Your task to perform on an android device: turn on improve location accuracy Image 0: 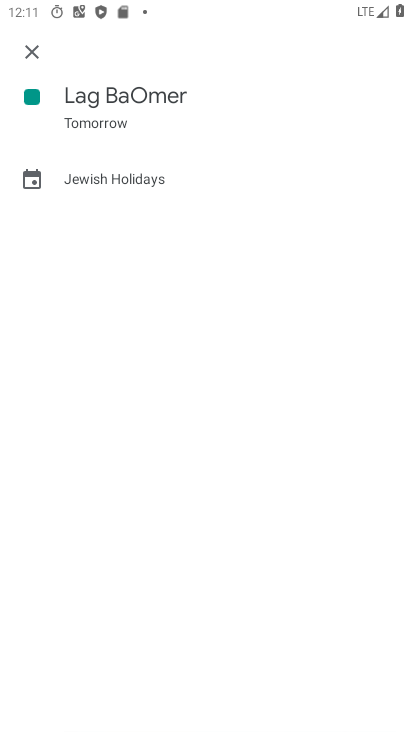
Step 0: press home button
Your task to perform on an android device: turn on improve location accuracy Image 1: 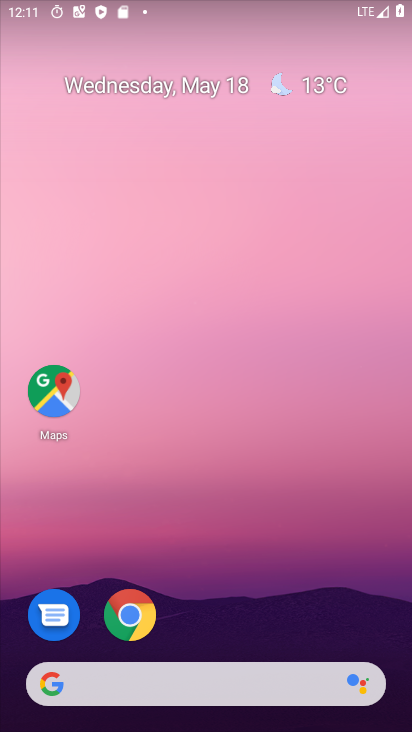
Step 1: drag from (143, 683) to (262, 83)
Your task to perform on an android device: turn on improve location accuracy Image 2: 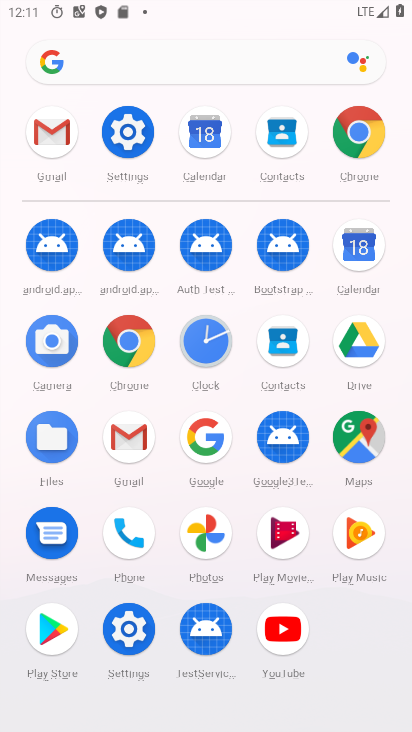
Step 2: click (137, 126)
Your task to perform on an android device: turn on improve location accuracy Image 3: 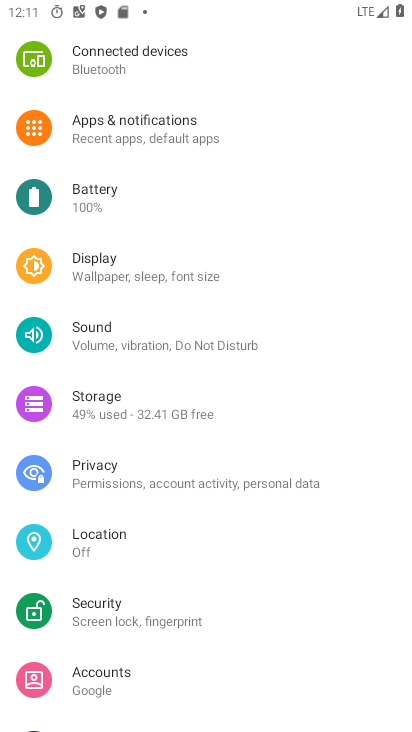
Step 3: click (107, 537)
Your task to perform on an android device: turn on improve location accuracy Image 4: 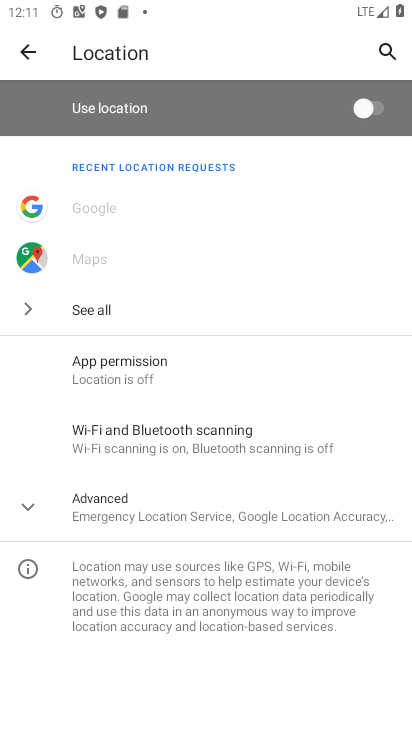
Step 4: click (141, 505)
Your task to perform on an android device: turn on improve location accuracy Image 5: 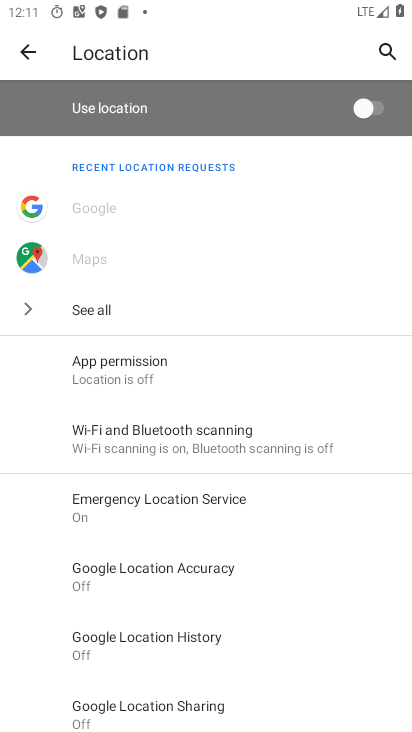
Step 5: click (203, 571)
Your task to perform on an android device: turn on improve location accuracy Image 6: 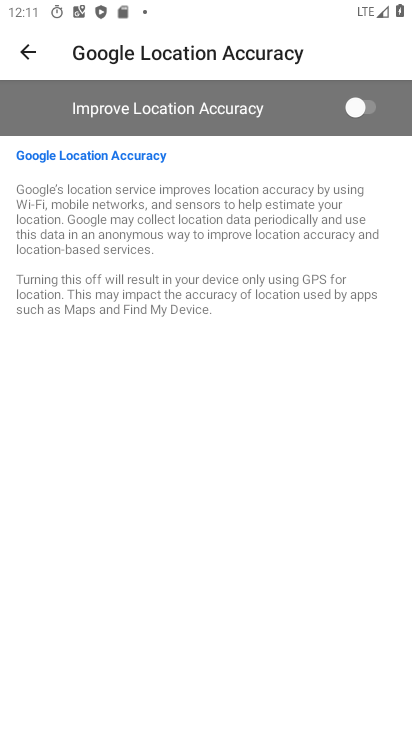
Step 6: click (369, 110)
Your task to perform on an android device: turn on improve location accuracy Image 7: 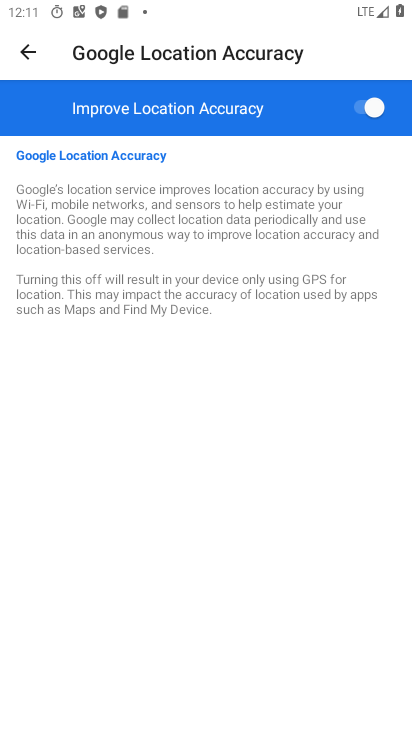
Step 7: task complete